Your task to perform on an android device: turn vacation reply on in the gmail app Image 0: 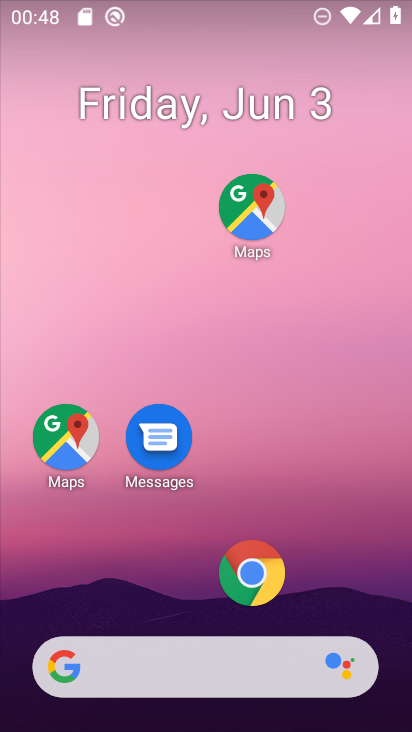
Step 0: click (50, 442)
Your task to perform on an android device: turn vacation reply on in the gmail app Image 1: 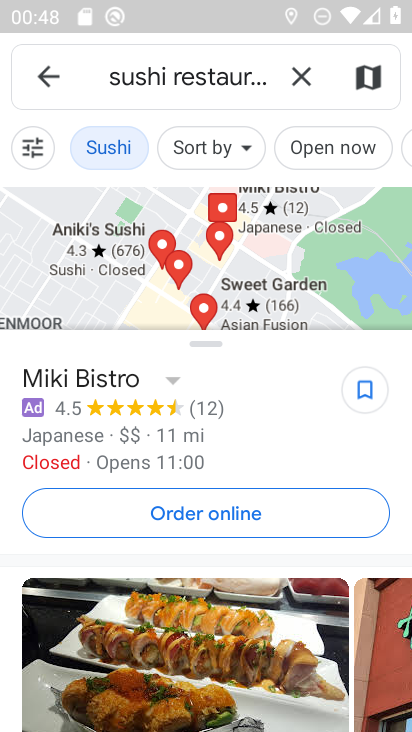
Step 1: press home button
Your task to perform on an android device: turn vacation reply on in the gmail app Image 2: 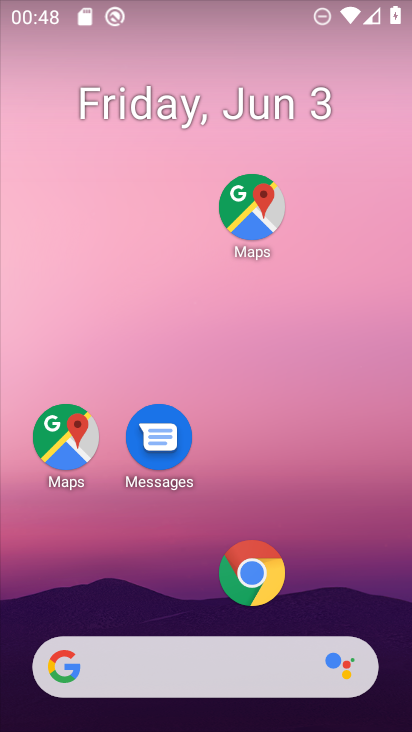
Step 2: drag from (329, 575) to (320, 261)
Your task to perform on an android device: turn vacation reply on in the gmail app Image 3: 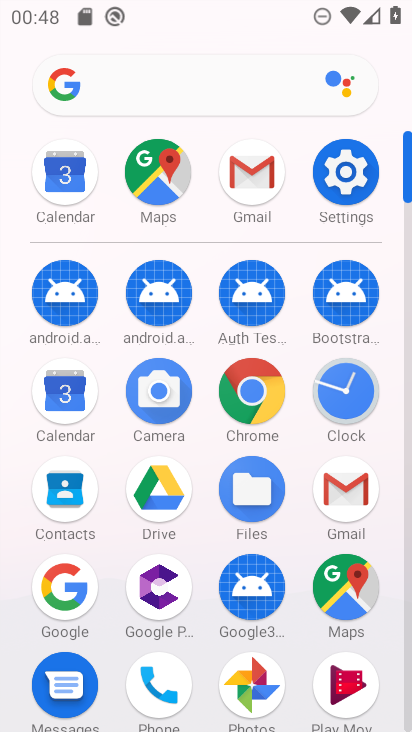
Step 3: click (250, 162)
Your task to perform on an android device: turn vacation reply on in the gmail app Image 4: 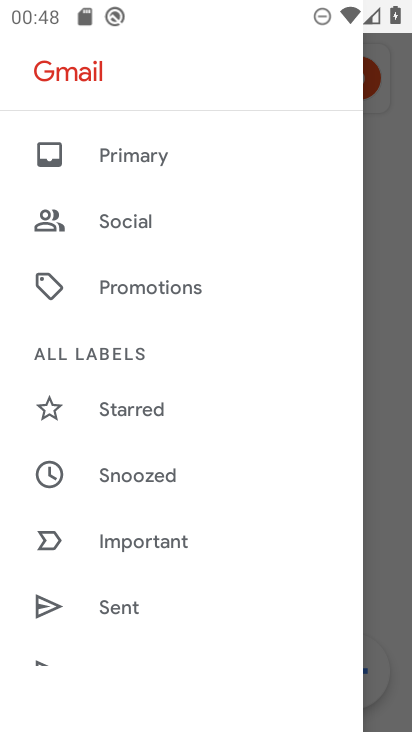
Step 4: drag from (130, 600) to (133, 350)
Your task to perform on an android device: turn vacation reply on in the gmail app Image 5: 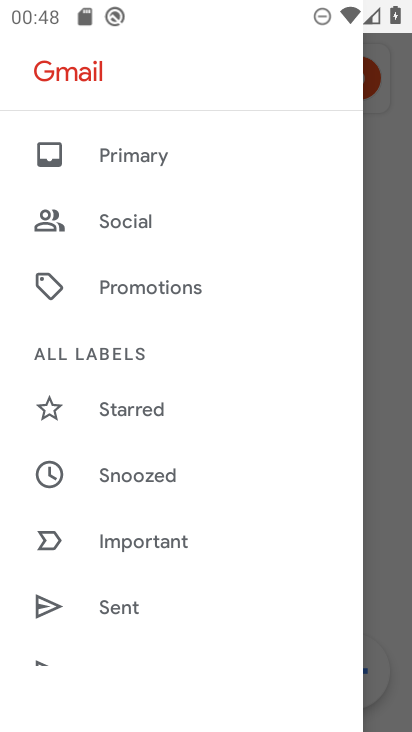
Step 5: drag from (176, 644) to (264, 156)
Your task to perform on an android device: turn vacation reply on in the gmail app Image 6: 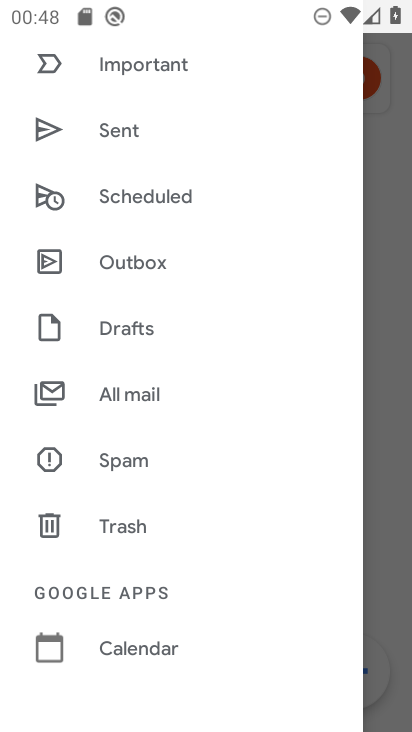
Step 6: drag from (216, 46) to (207, 10)
Your task to perform on an android device: turn vacation reply on in the gmail app Image 7: 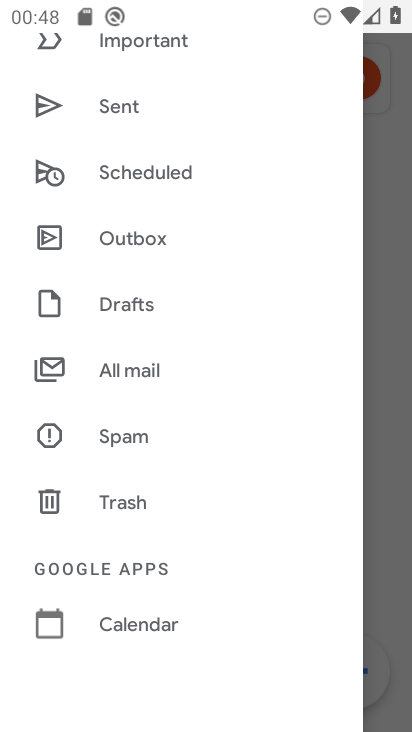
Step 7: drag from (206, 632) to (24, 177)
Your task to perform on an android device: turn vacation reply on in the gmail app Image 8: 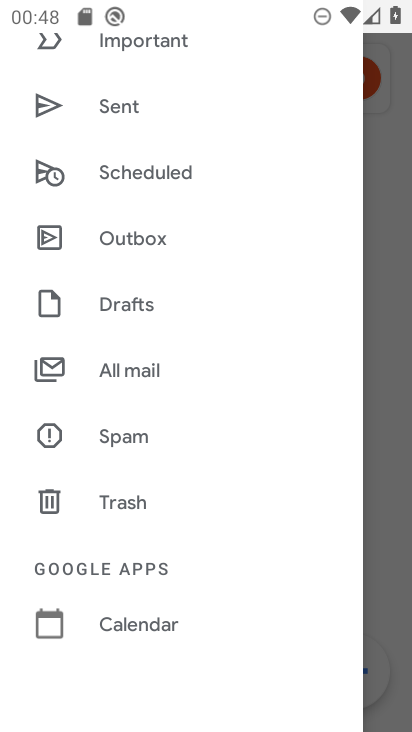
Step 8: drag from (154, 622) to (409, 137)
Your task to perform on an android device: turn vacation reply on in the gmail app Image 9: 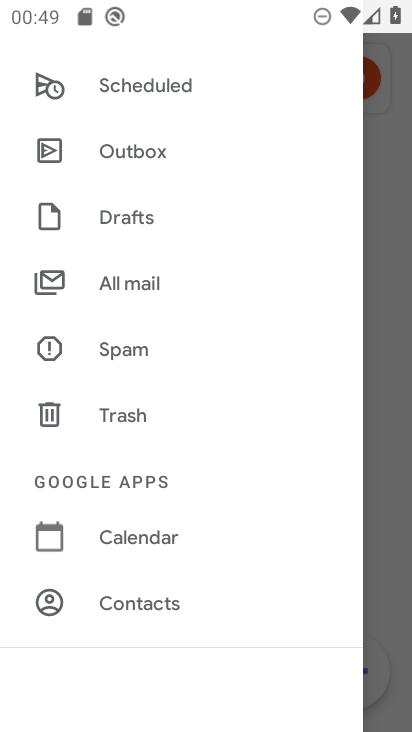
Step 9: drag from (136, 579) to (302, 18)
Your task to perform on an android device: turn vacation reply on in the gmail app Image 10: 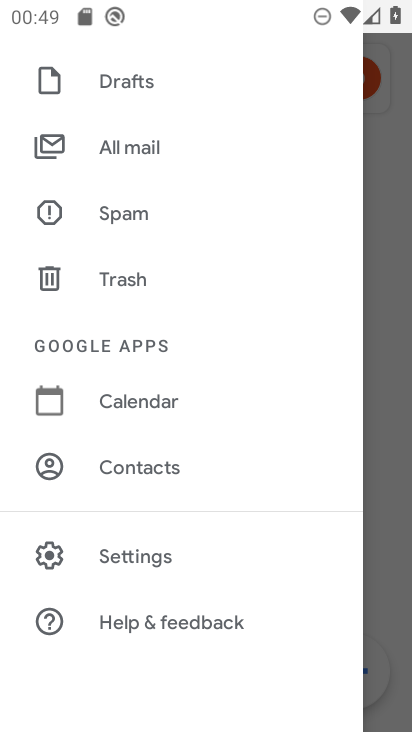
Step 10: click (140, 551)
Your task to perform on an android device: turn vacation reply on in the gmail app Image 11: 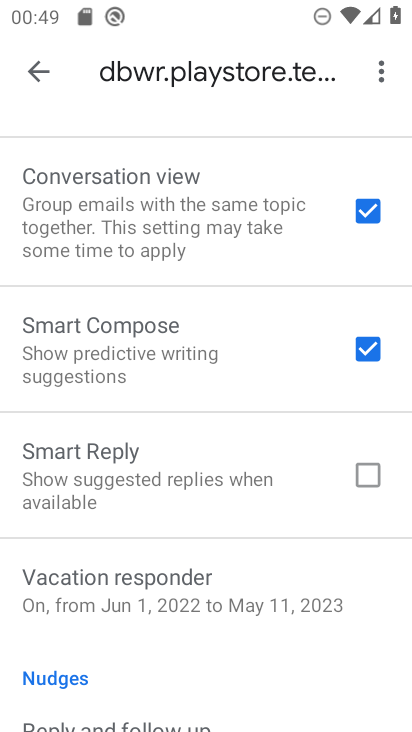
Step 11: click (103, 603)
Your task to perform on an android device: turn vacation reply on in the gmail app Image 12: 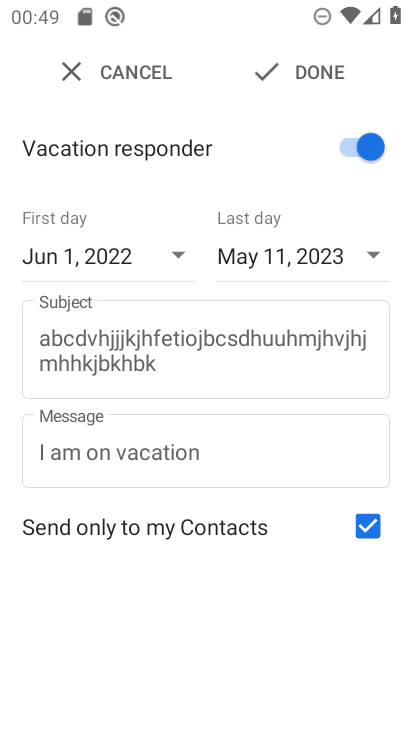
Step 12: task complete